Your task to perform on an android device: What's the weather today? Image 0: 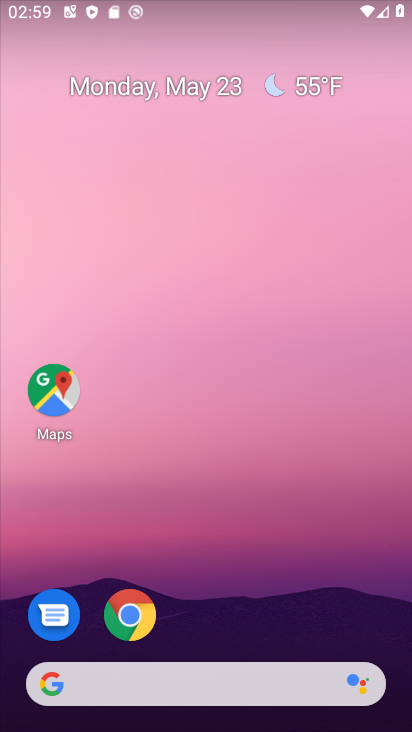
Step 0: click (228, 682)
Your task to perform on an android device: What's the weather today? Image 1: 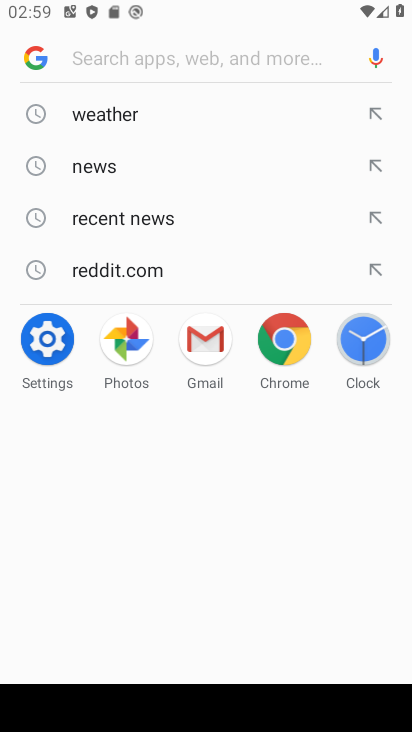
Step 1: click (141, 117)
Your task to perform on an android device: What's the weather today? Image 2: 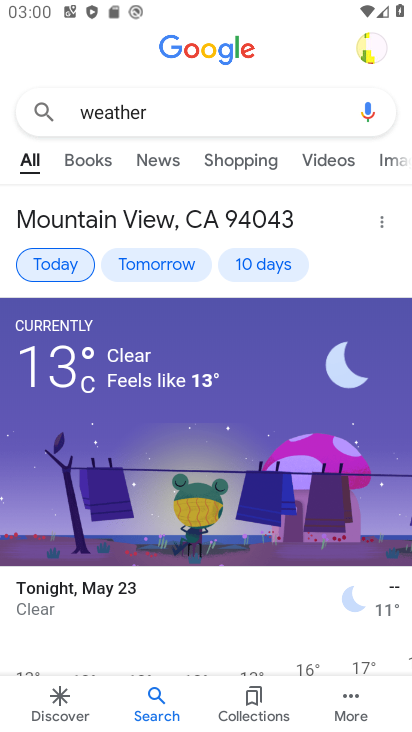
Step 2: task complete